Your task to perform on an android device: Go to Google Image 0: 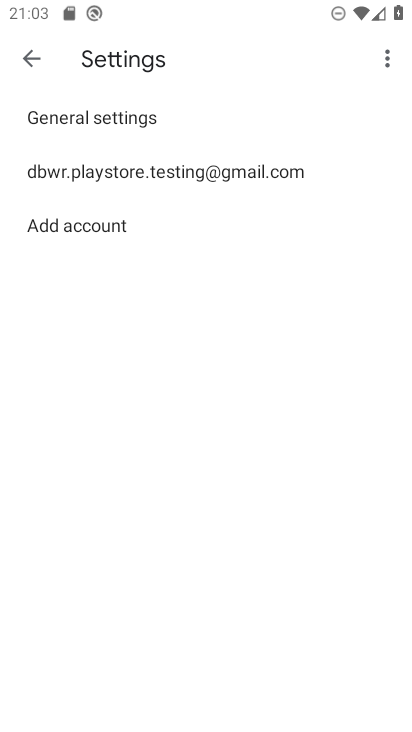
Step 0: press home button
Your task to perform on an android device: Go to Google Image 1: 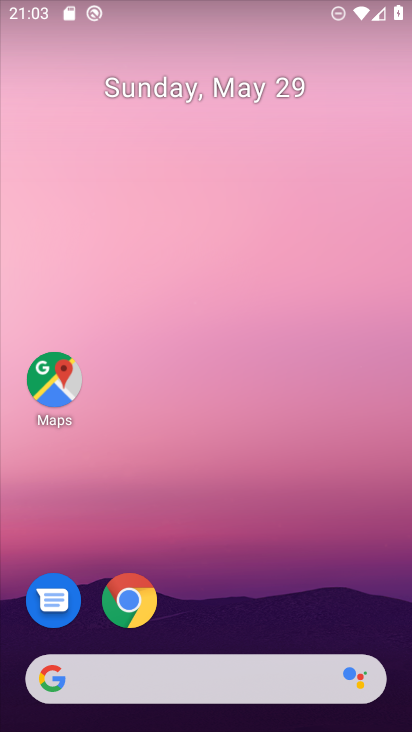
Step 1: drag from (234, 602) to (260, 177)
Your task to perform on an android device: Go to Google Image 2: 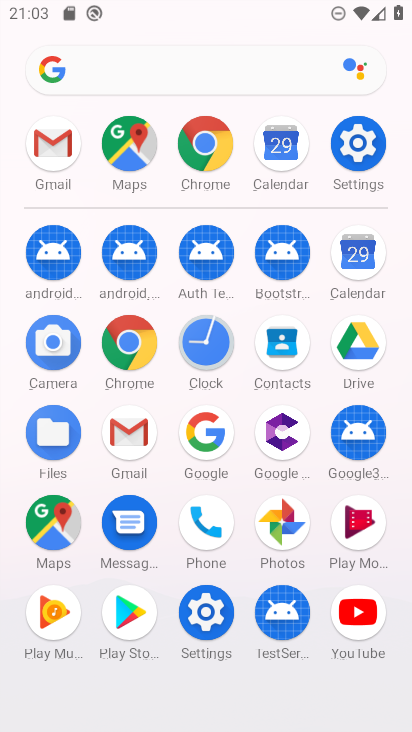
Step 2: click (204, 430)
Your task to perform on an android device: Go to Google Image 3: 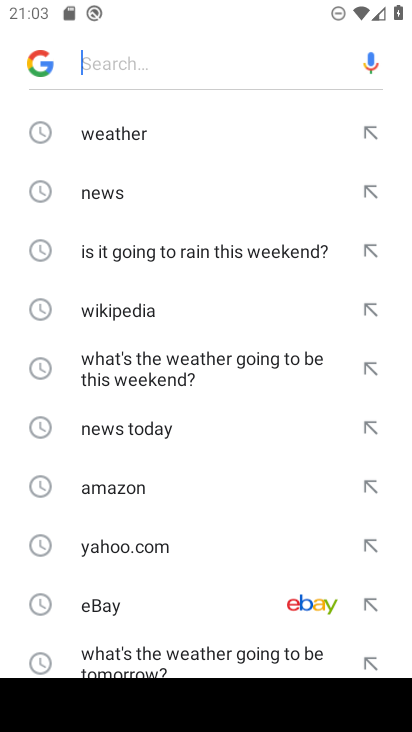
Step 3: task complete